Your task to perform on an android device: turn vacation reply on in the gmail app Image 0: 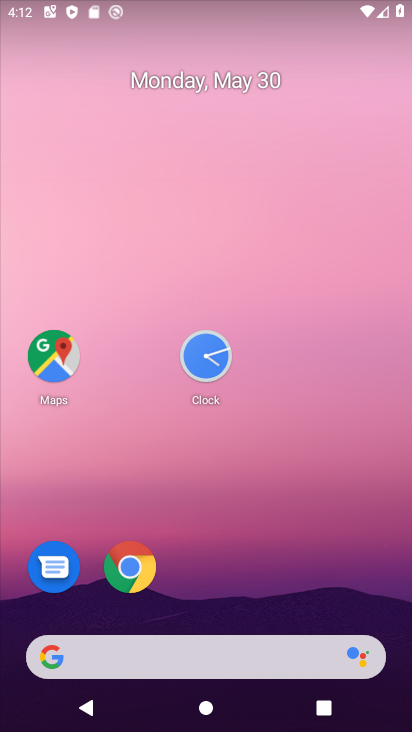
Step 0: drag from (260, 692) to (120, 14)
Your task to perform on an android device: turn vacation reply on in the gmail app Image 1: 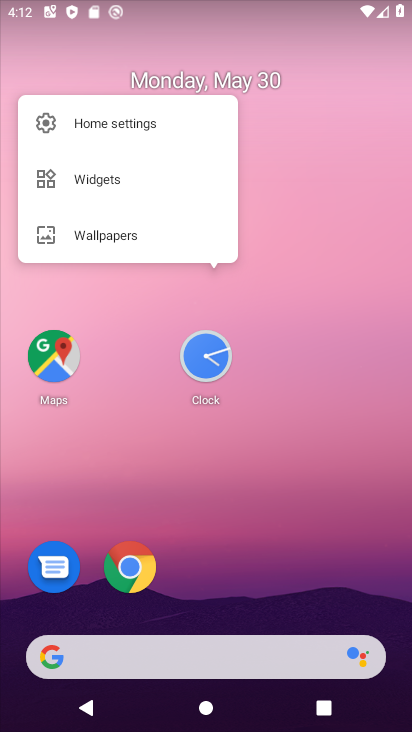
Step 1: drag from (247, 688) to (123, 5)
Your task to perform on an android device: turn vacation reply on in the gmail app Image 2: 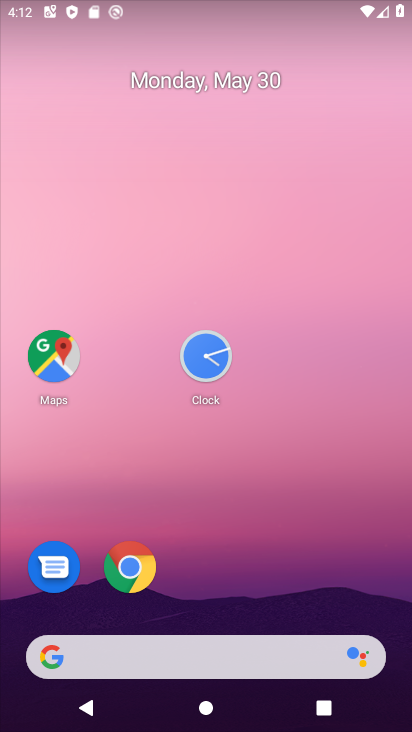
Step 2: drag from (230, 608) to (156, 142)
Your task to perform on an android device: turn vacation reply on in the gmail app Image 3: 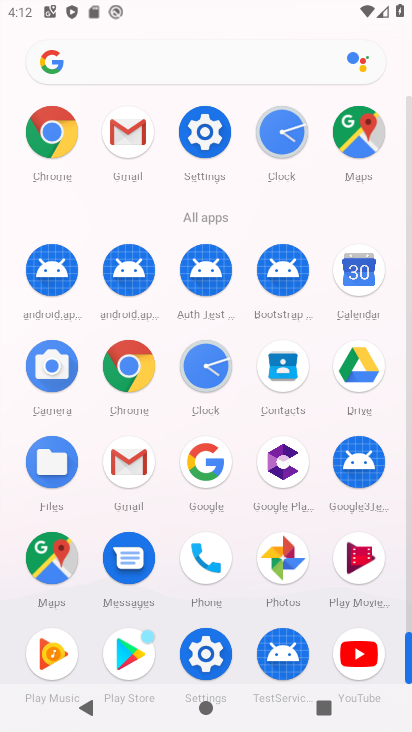
Step 3: click (130, 458)
Your task to perform on an android device: turn vacation reply on in the gmail app Image 4: 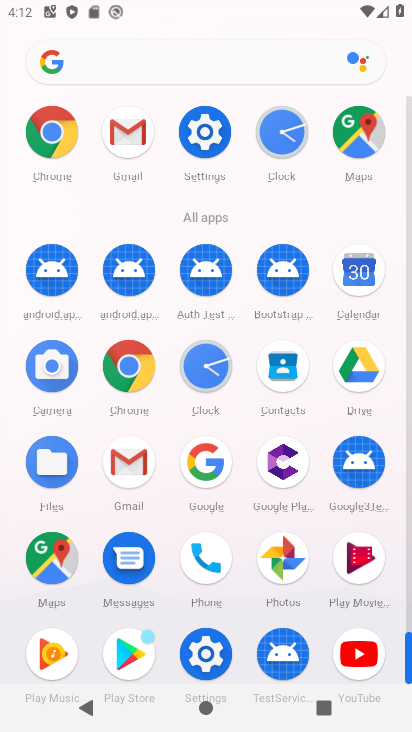
Step 4: click (130, 458)
Your task to perform on an android device: turn vacation reply on in the gmail app Image 5: 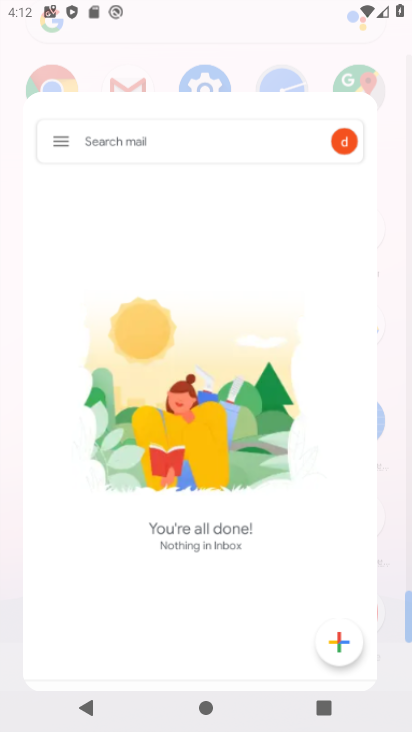
Step 5: click (130, 458)
Your task to perform on an android device: turn vacation reply on in the gmail app Image 6: 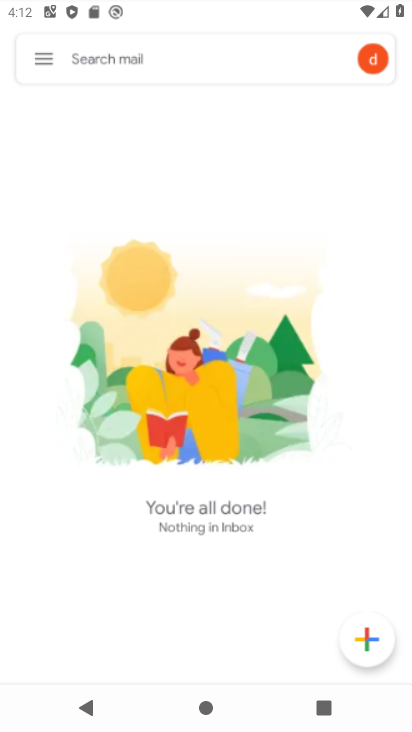
Step 6: click (130, 458)
Your task to perform on an android device: turn vacation reply on in the gmail app Image 7: 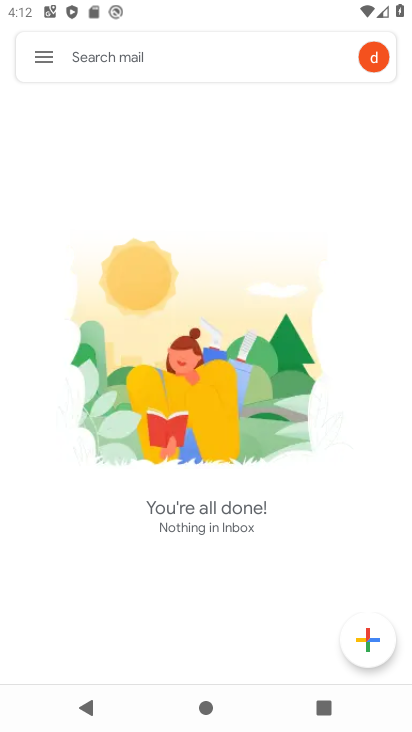
Step 7: click (130, 458)
Your task to perform on an android device: turn vacation reply on in the gmail app Image 8: 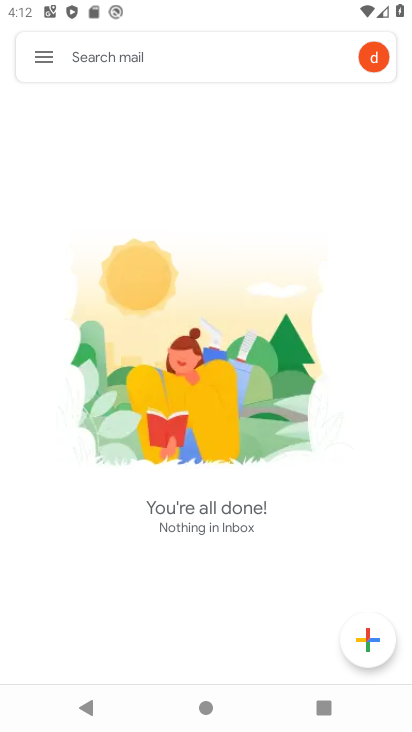
Step 8: click (46, 56)
Your task to perform on an android device: turn vacation reply on in the gmail app Image 9: 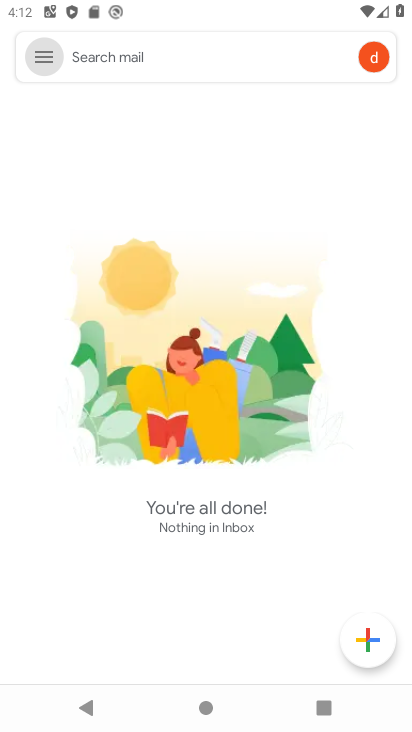
Step 9: click (46, 56)
Your task to perform on an android device: turn vacation reply on in the gmail app Image 10: 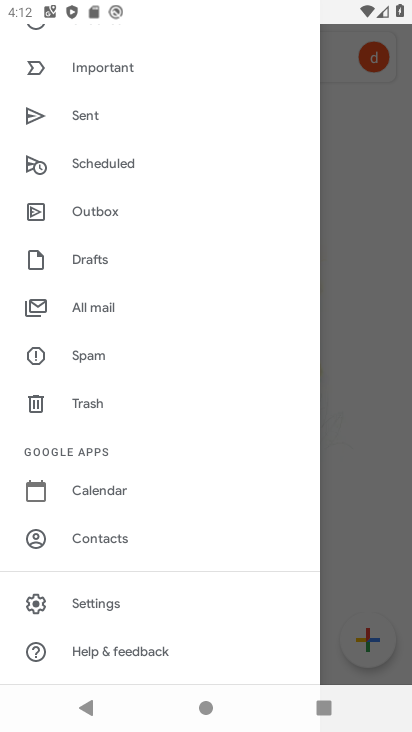
Step 10: drag from (115, 374) to (128, 112)
Your task to perform on an android device: turn vacation reply on in the gmail app Image 11: 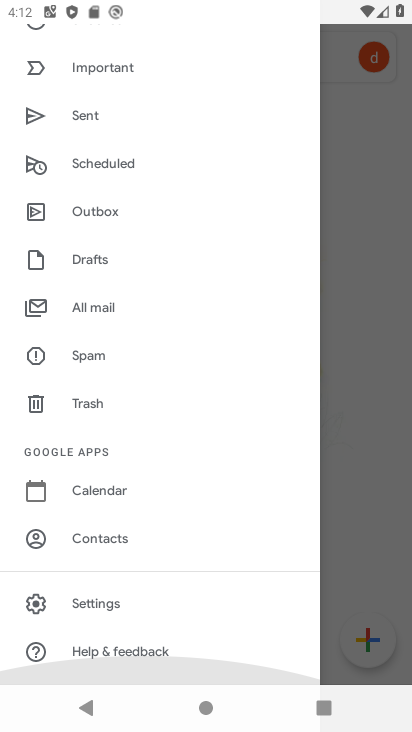
Step 11: drag from (159, 337) to (159, 30)
Your task to perform on an android device: turn vacation reply on in the gmail app Image 12: 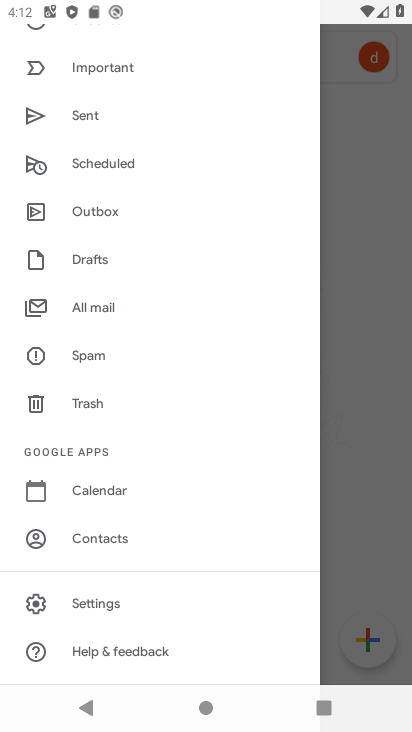
Step 12: click (102, 602)
Your task to perform on an android device: turn vacation reply on in the gmail app Image 13: 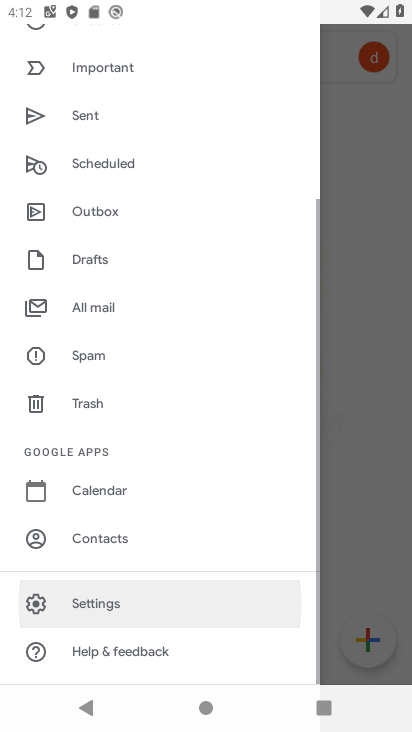
Step 13: click (102, 602)
Your task to perform on an android device: turn vacation reply on in the gmail app Image 14: 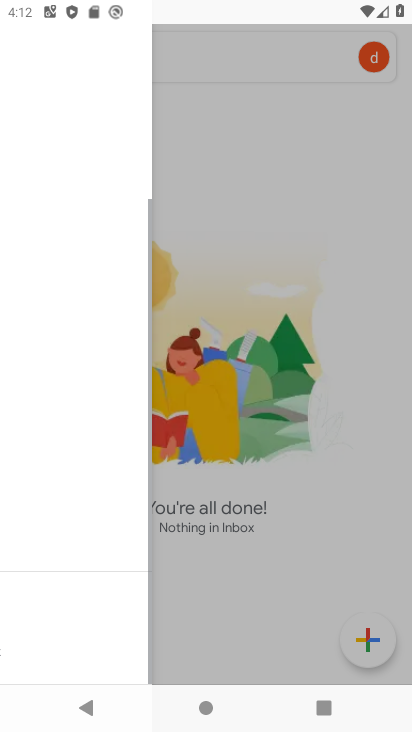
Step 14: click (102, 602)
Your task to perform on an android device: turn vacation reply on in the gmail app Image 15: 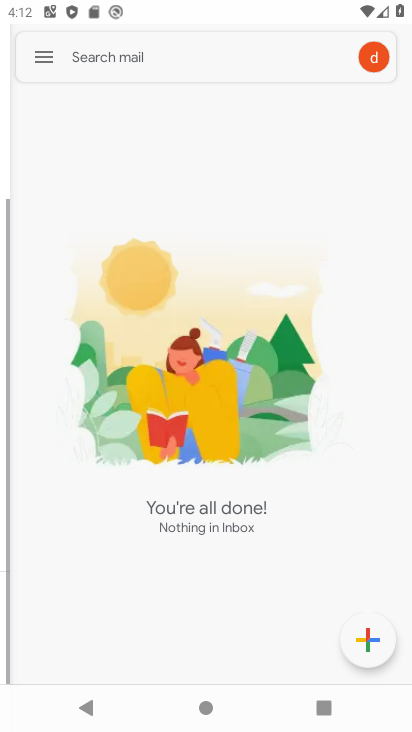
Step 15: click (102, 602)
Your task to perform on an android device: turn vacation reply on in the gmail app Image 16: 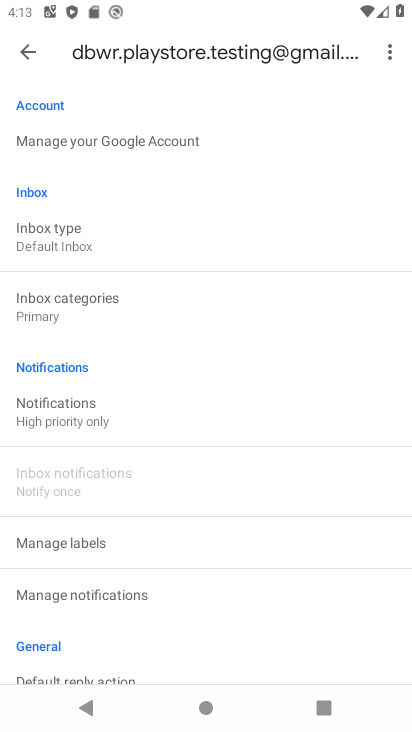
Step 16: drag from (94, 546) to (81, 239)
Your task to perform on an android device: turn vacation reply on in the gmail app Image 17: 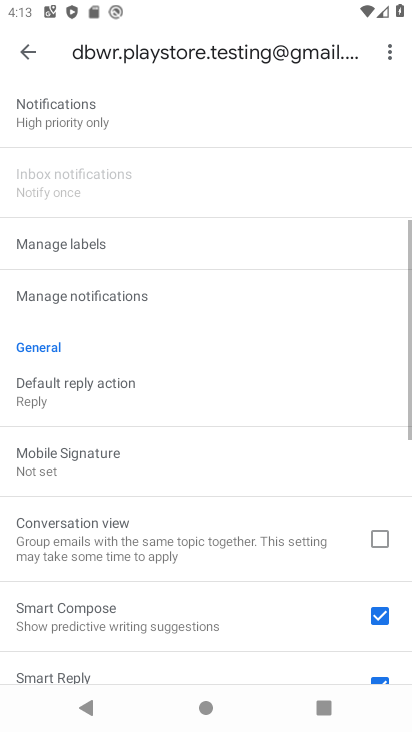
Step 17: drag from (94, 464) to (83, 129)
Your task to perform on an android device: turn vacation reply on in the gmail app Image 18: 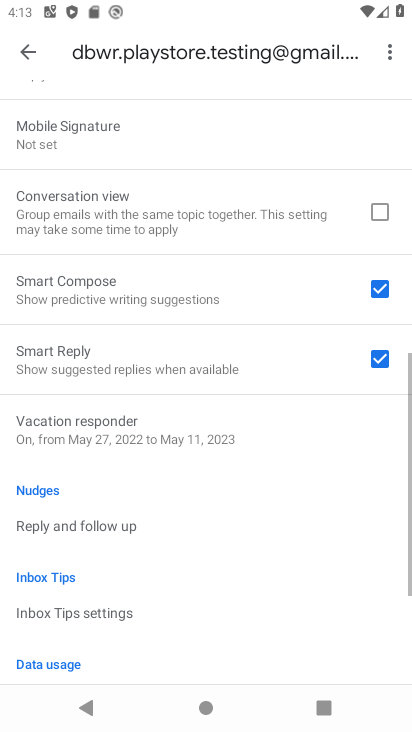
Step 18: drag from (100, 469) to (82, 154)
Your task to perform on an android device: turn vacation reply on in the gmail app Image 19: 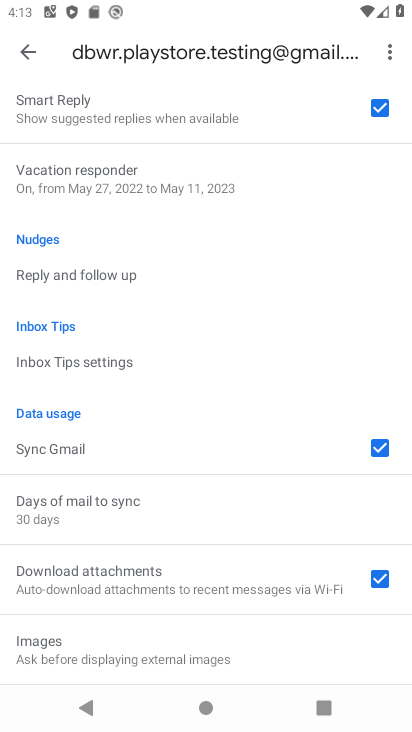
Step 19: click (102, 172)
Your task to perform on an android device: turn vacation reply on in the gmail app Image 20: 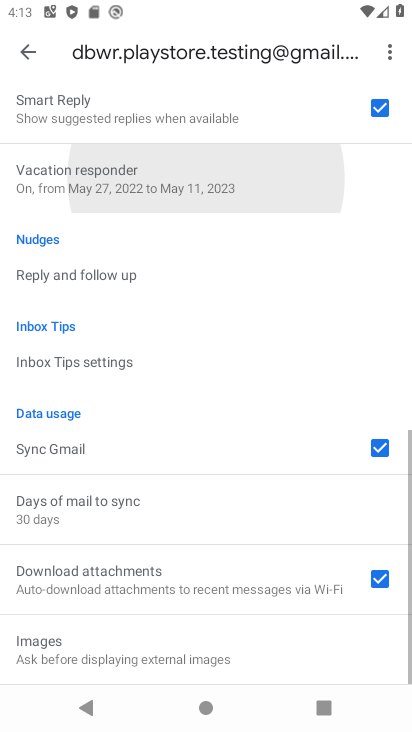
Step 20: click (102, 172)
Your task to perform on an android device: turn vacation reply on in the gmail app Image 21: 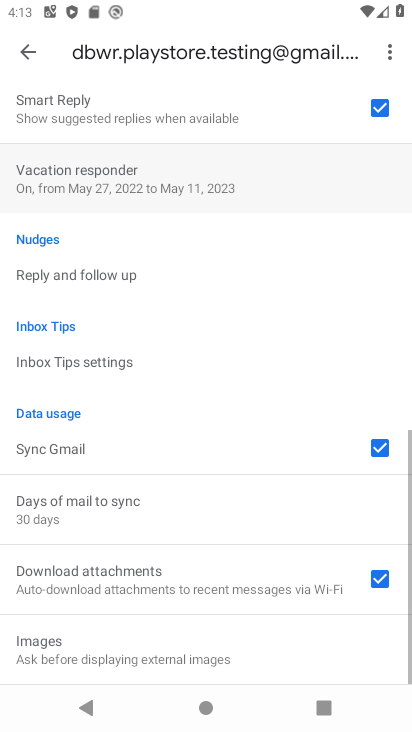
Step 21: click (101, 173)
Your task to perform on an android device: turn vacation reply on in the gmail app Image 22: 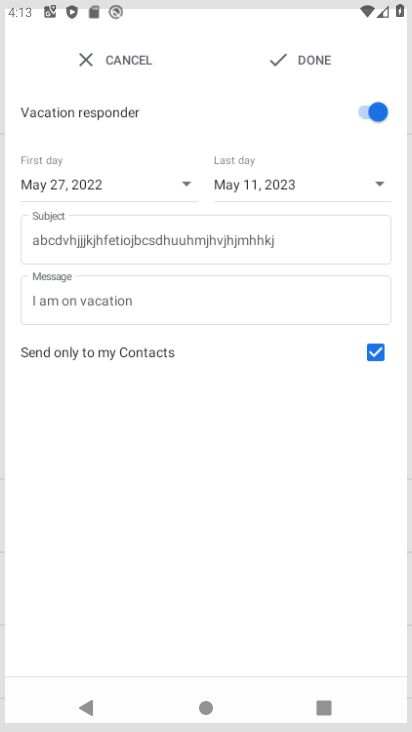
Step 22: click (105, 177)
Your task to perform on an android device: turn vacation reply on in the gmail app Image 23: 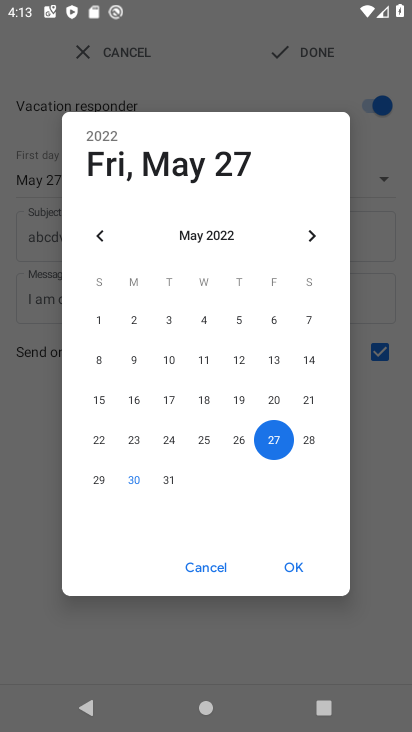
Step 23: click (206, 563)
Your task to perform on an android device: turn vacation reply on in the gmail app Image 24: 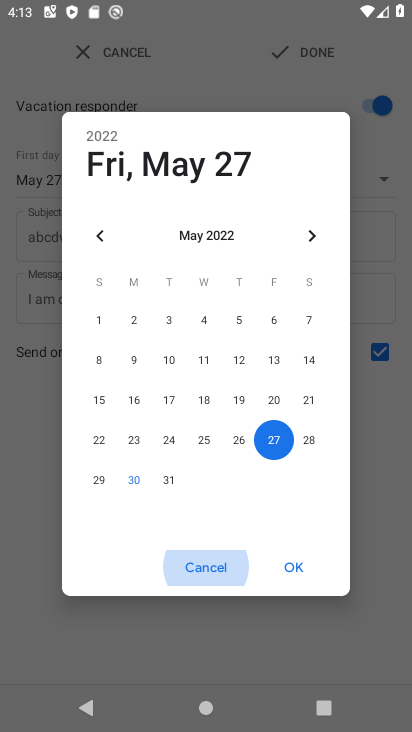
Step 24: click (201, 559)
Your task to perform on an android device: turn vacation reply on in the gmail app Image 25: 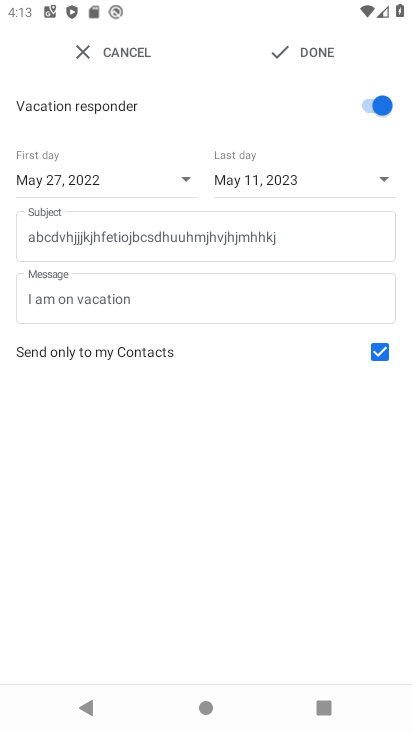
Step 25: task complete